Your task to perform on an android device: Search for pizza restaurants on Maps Image 0: 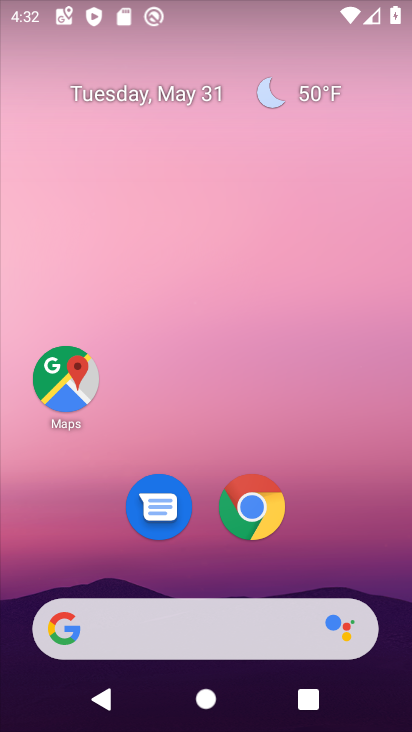
Step 0: click (63, 374)
Your task to perform on an android device: Search for pizza restaurants on Maps Image 1: 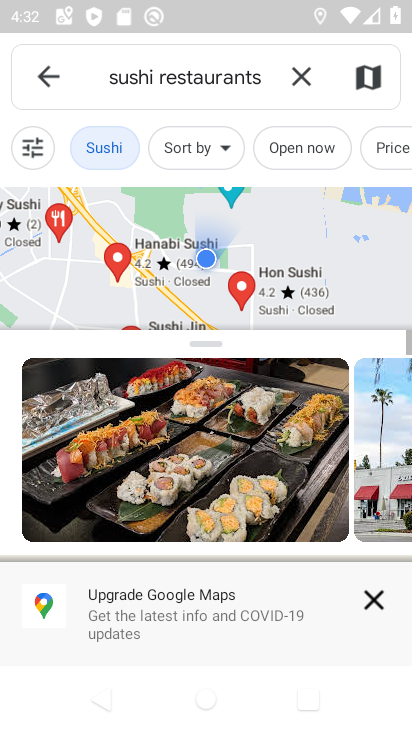
Step 1: click (304, 66)
Your task to perform on an android device: Search for pizza restaurants on Maps Image 2: 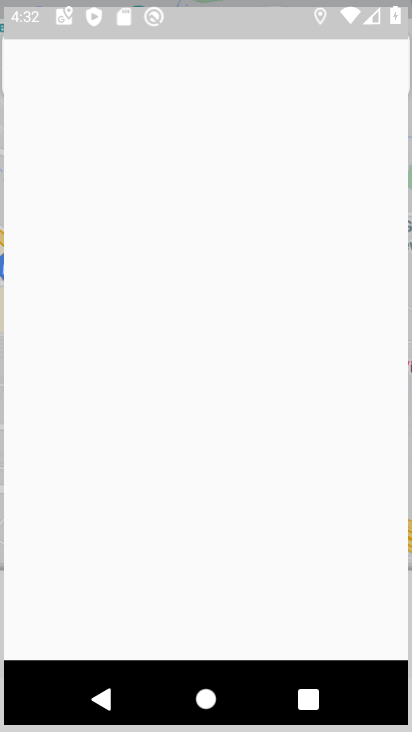
Step 2: click (194, 71)
Your task to perform on an android device: Search for pizza restaurants on Maps Image 3: 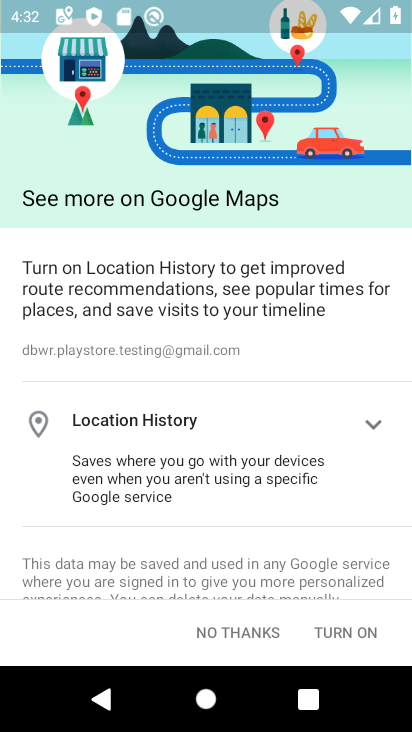
Step 3: click (278, 629)
Your task to perform on an android device: Search for pizza restaurants on Maps Image 4: 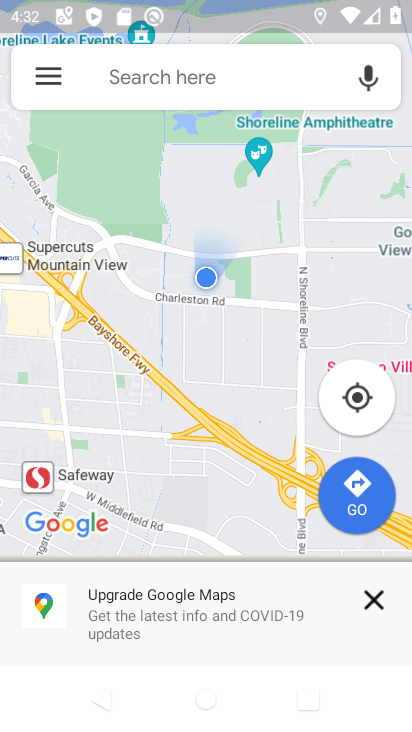
Step 4: click (205, 71)
Your task to perform on an android device: Search for pizza restaurants on Maps Image 5: 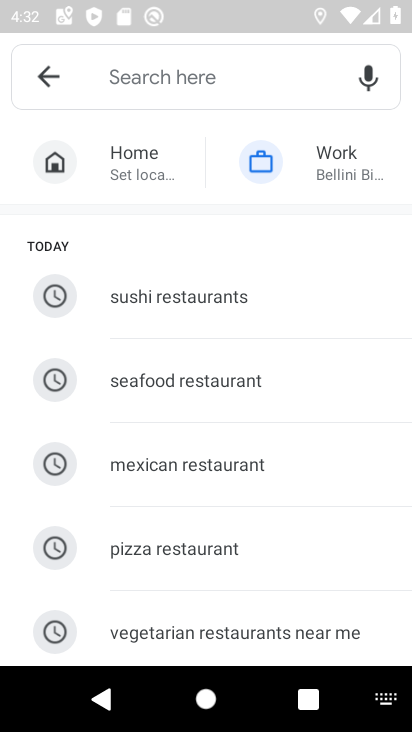
Step 5: click (226, 536)
Your task to perform on an android device: Search for pizza restaurants on Maps Image 6: 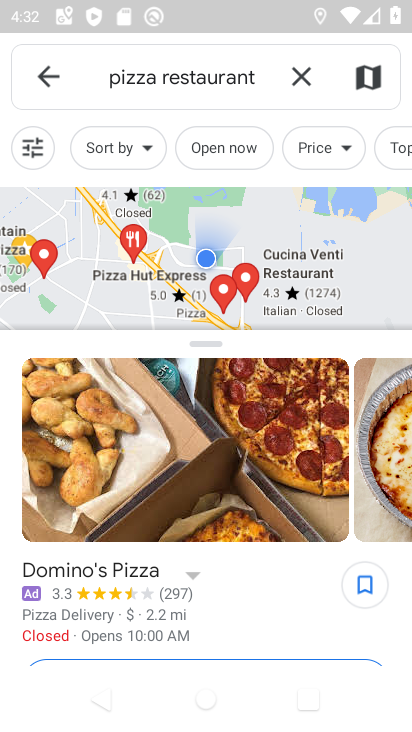
Step 6: task complete